Your task to perform on an android device: check storage Image 0: 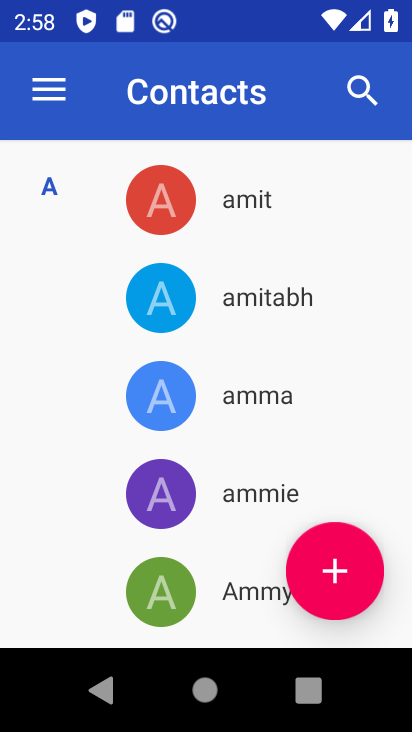
Step 0: press back button
Your task to perform on an android device: check storage Image 1: 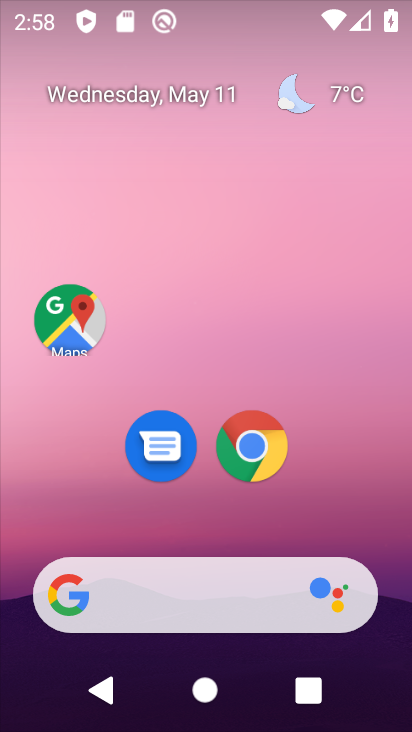
Step 1: drag from (361, 680) to (313, 168)
Your task to perform on an android device: check storage Image 2: 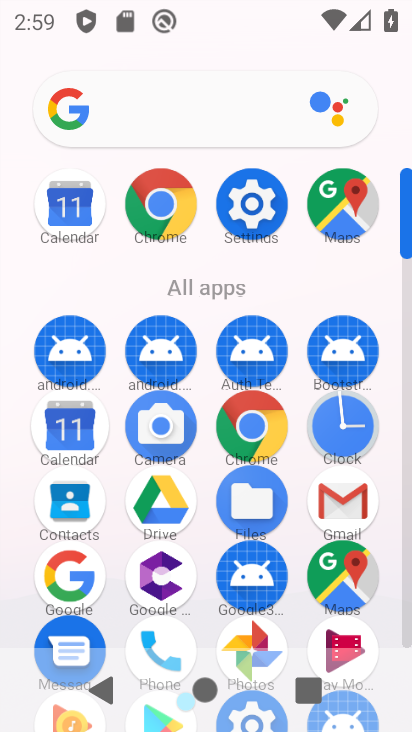
Step 2: click (249, 203)
Your task to perform on an android device: check storage Image 3: 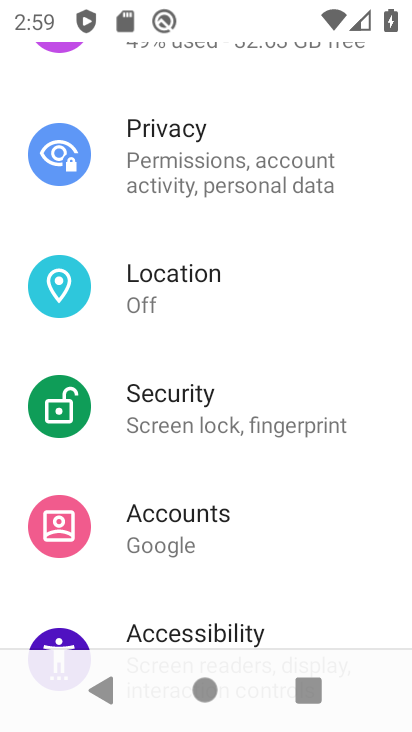
Step 3: drag from (209, 177) to (180, 648)
Your task to perform on an android device: check storage Image 4: 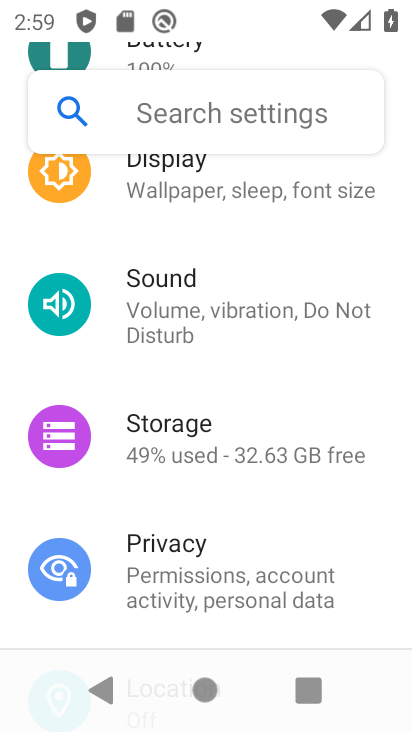
Step 4: drag from (165, 263) to (210, 497)
Your task to perform on an android device: check storage Image 5: 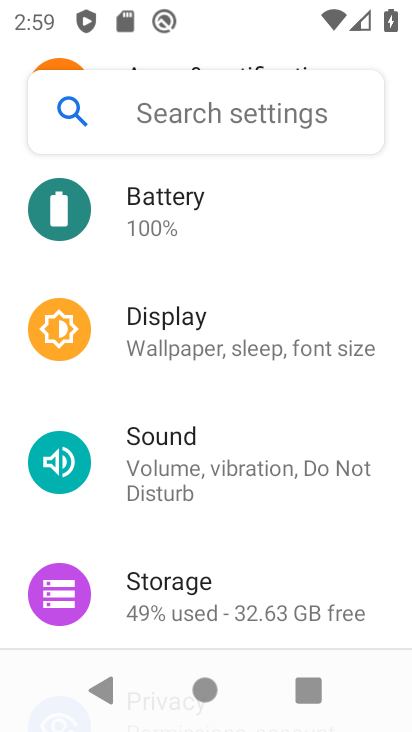
Step 5: drag from (189, 284) to (230, 587)
Your task to perform on an android device: check storage Image 6: 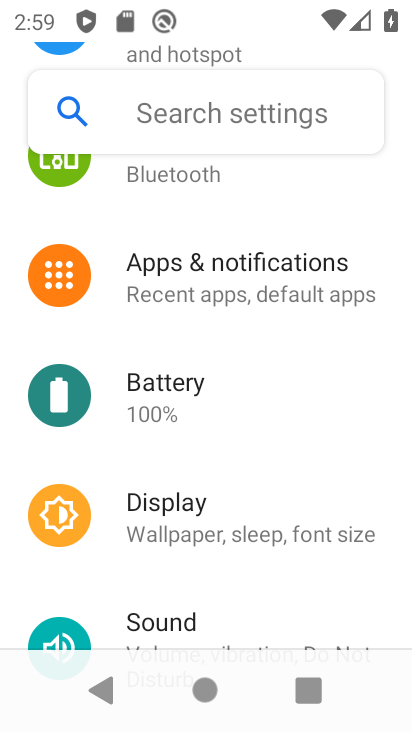
Step 6: drag from (213, 288) to (255, 577)
Your task to perform on an android device: check storage Image 7: 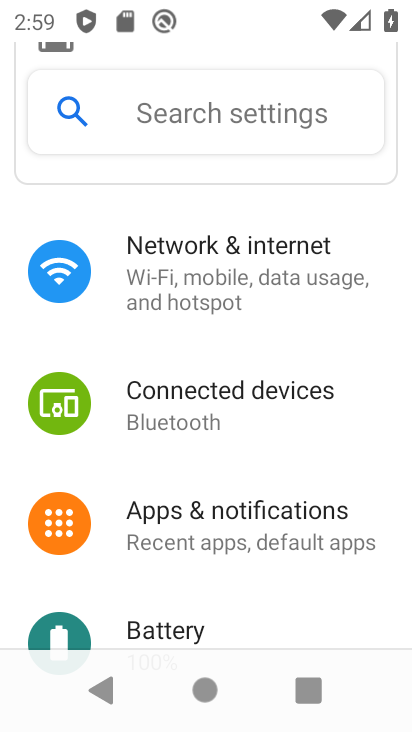
Step 7: drag from (227, 311) to (247, 532)
Your task to perform on an android device: check storage Image 8: 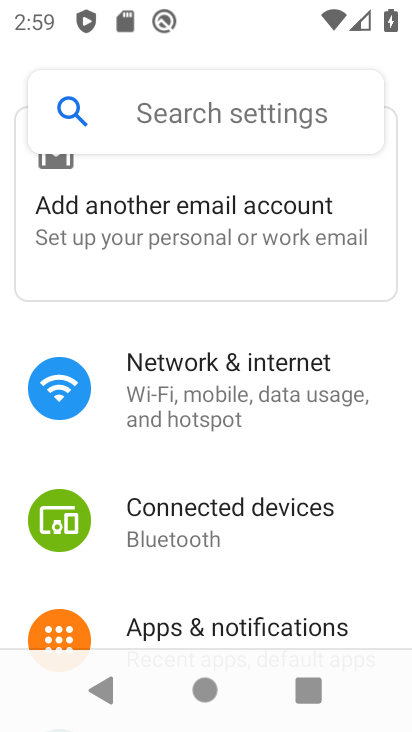
Step 8: drag from (251, 550) to (236, 349)
Your task to perform on an android device: check storage Image 9: 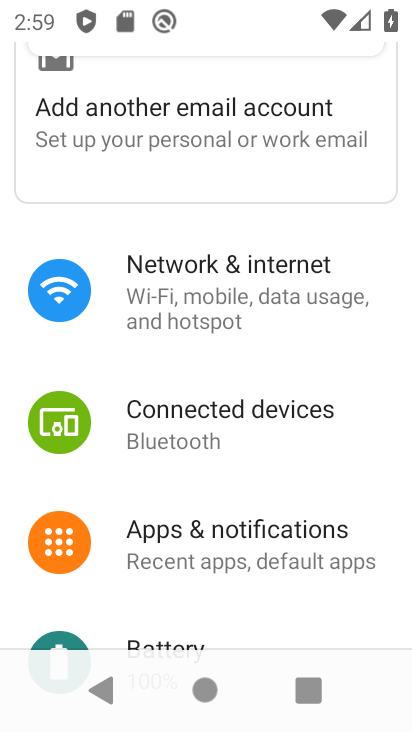
Step 9: drag from (233, 517) to (231, 281)
Your task to perform on an android device: check storage Image 10: 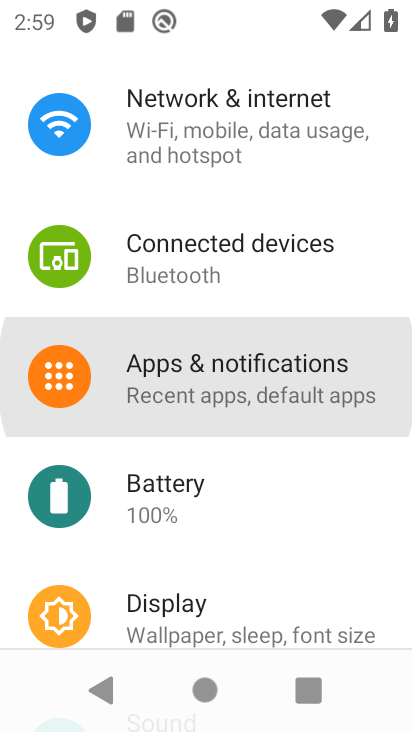
Step 10: drag from (232, 402) to (239, 222)
Your task to perform on an android device: check storage Image 11: 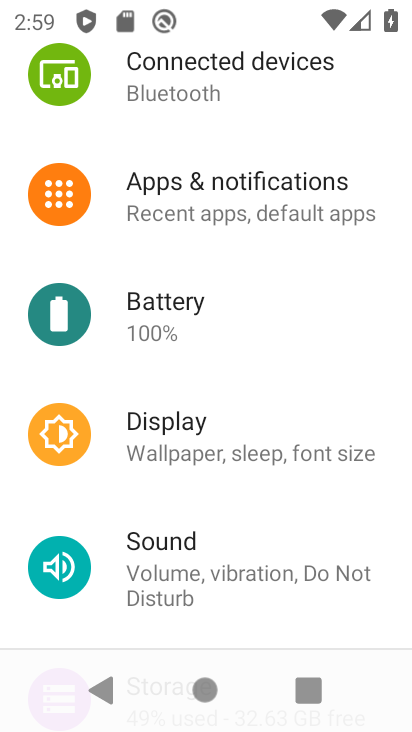
Step 11: drag from (258, 385) to (252, 255)
Your task to perform on an android device: check storage Image 12: 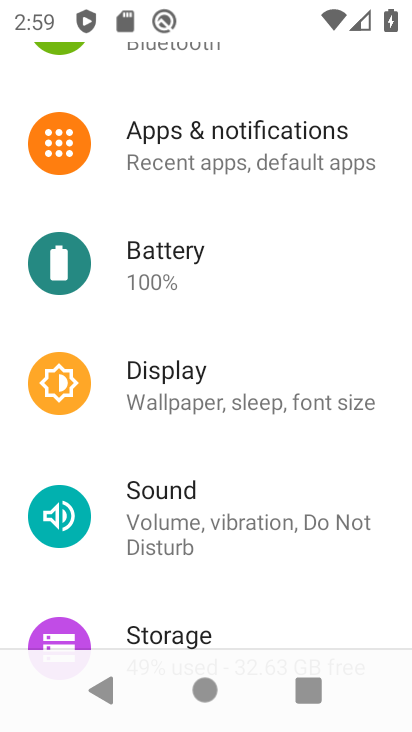
Step 12: drag from (194, 570) to (252, 267)
Your task to perform on an android device: check storage Image 13: 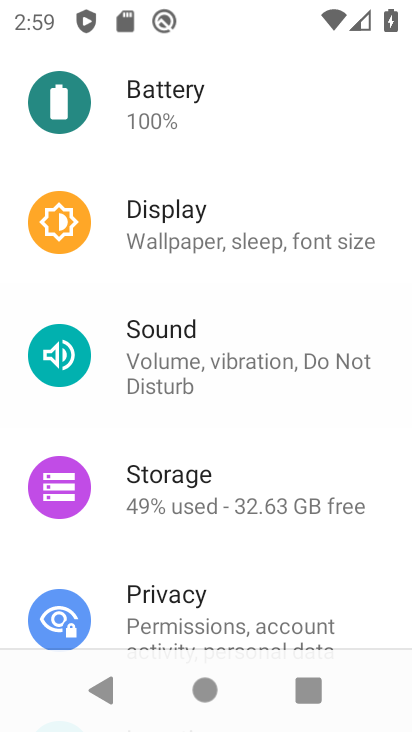
Step 13: drag from (247, 385) to (240, 222)
Your task to perform on an android device: check storage Image 14: 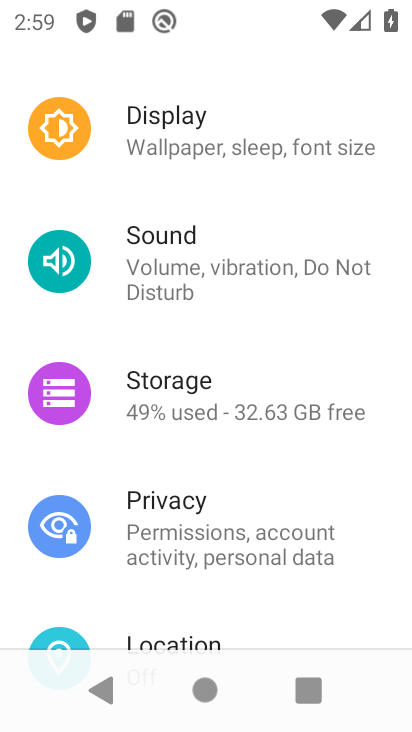
Step 14: click (182, 403)
Your task to perform on an android device: check storage Image 15: 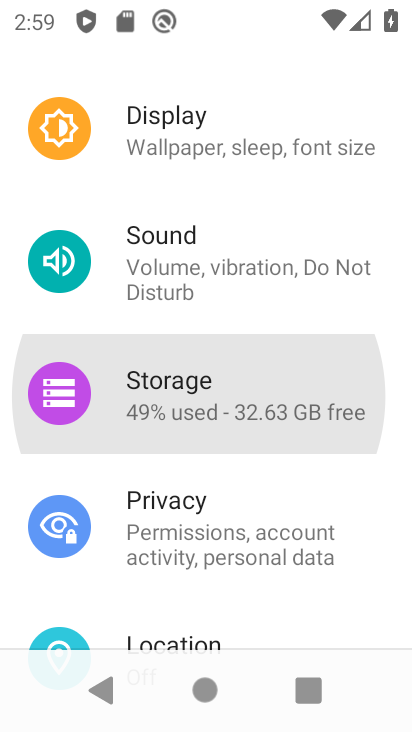
Step 15: click (184, 404)
Your task to perform on an android device: check storage Image 16: 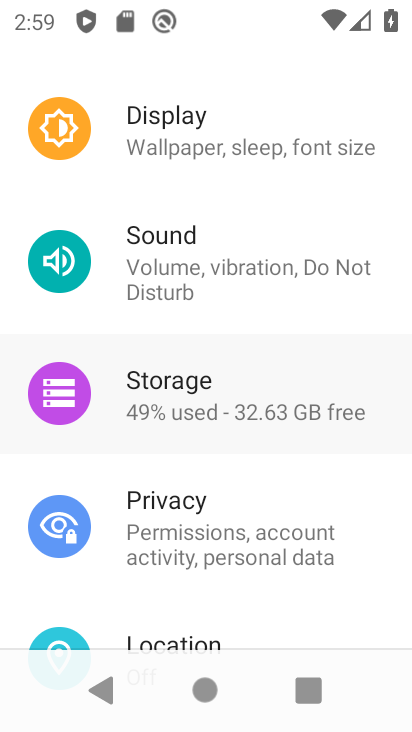
Step 16: click (185, 405)
Your task to perform on an android device: check storage Image 17: 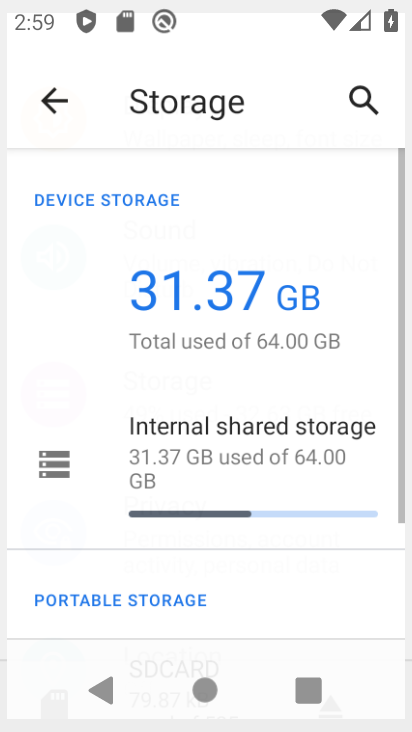
Step 17: click (186, 405)
Your task to perform on an android device: check storage Image 18: 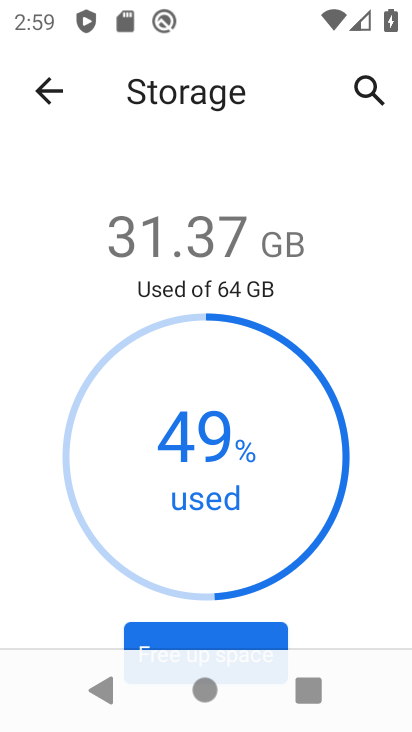
Step 18: task complete